Your task to perform on an android device: Open Google Chrome and click the shortcut for Amazon.com Image 0: 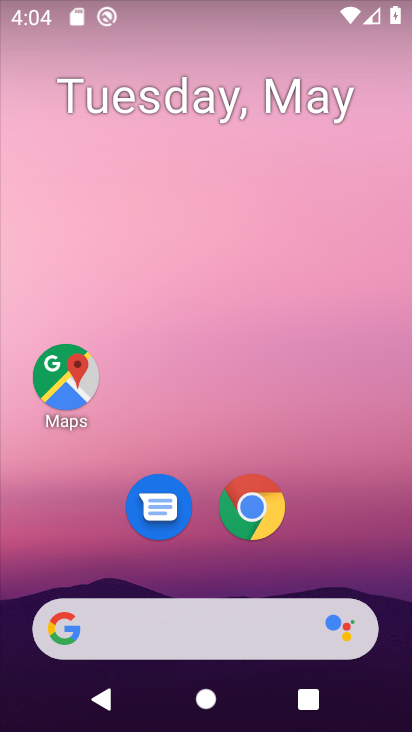
Step 0: click (252, 503)
Your task to perform on an android device: Open Google Chrome and click the shortcut for Amazon.com Image 1: 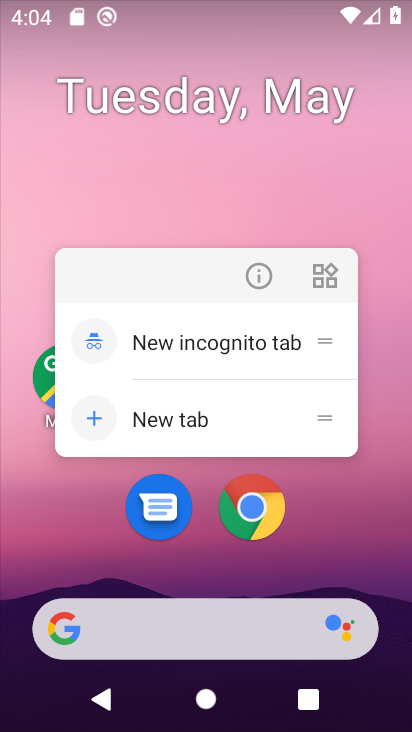
Step 1: click (252, 503)
Your task to perform on an android device: Open Google Chrome and click the shortcut for Amazon.com Image 2: 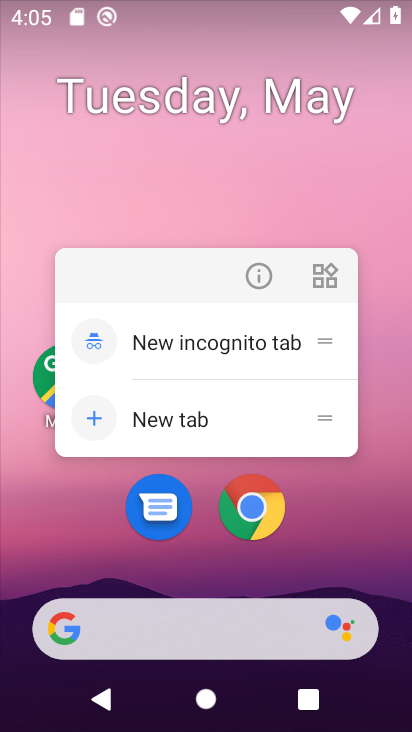
Step 2: click (239, 508)
Your task to perform on an android device: Open Google Chrome and click the shortcut for Amazon.com Image 3: 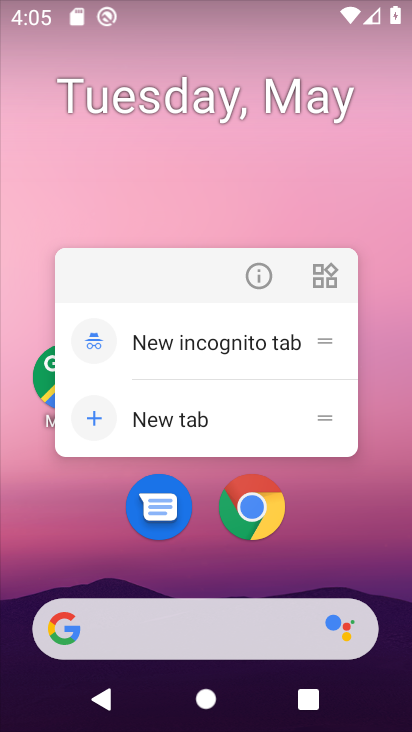
Step 3: click (241, 511)
Your task to perform on an android device: Open Google Chrome and click the shortcut for Amazon.com Image 4: 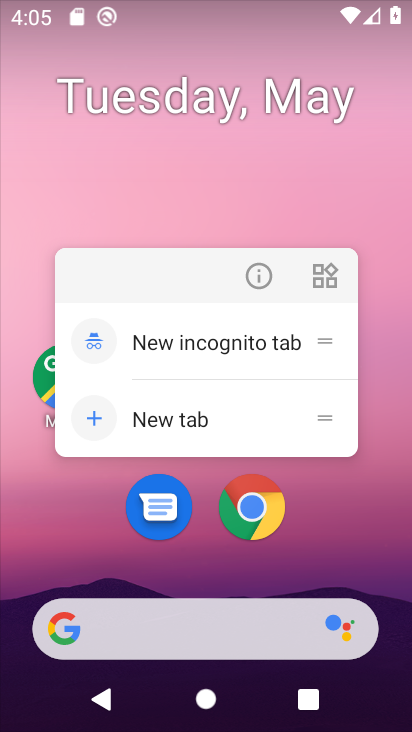
Step 4: click (264, 532)
Your task to perform on an android device: Open Google Chrome and click the shortcut for Amazon.com Image 5: 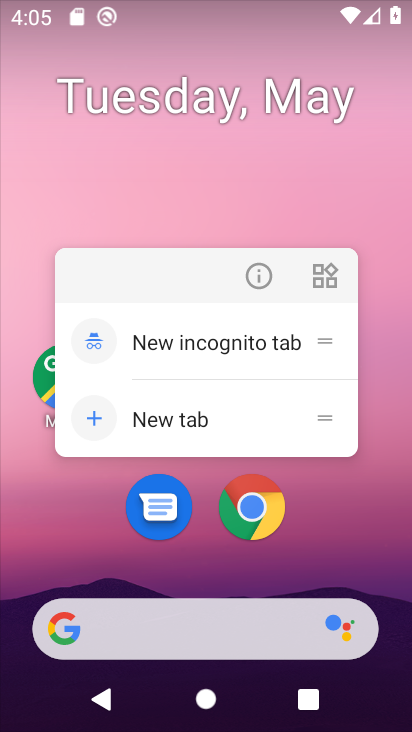
Step 5: click (258, 515)
Your task to perform on an android device: Open Google Chrome and click the shortcut for Amazon.com Image 6: 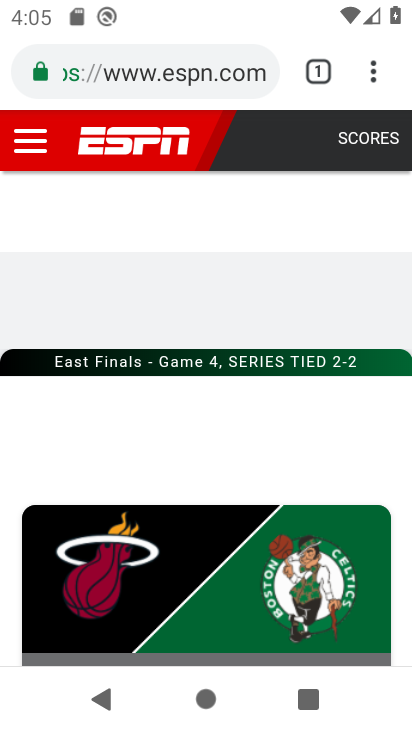
Step 6: click (370, 77)
Your task to perform on an android device: Open Google Chrome and click the shortcut for Amazon.com Image 7: 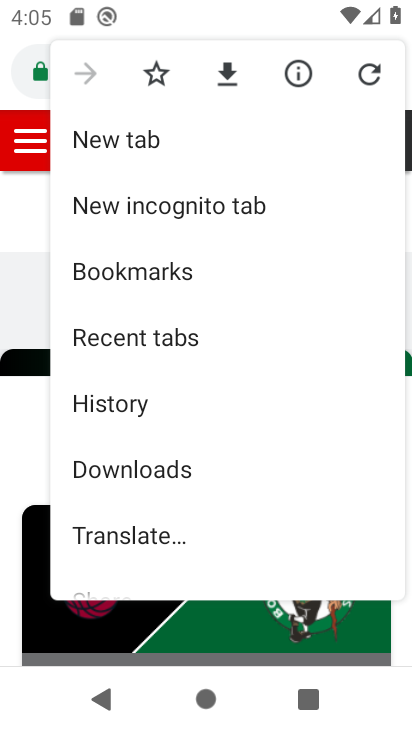
Step 7: click (131, 142)
Your task to perform on an android device: Open Google Chrome and click the shortcut for Amazon.com Image 8: 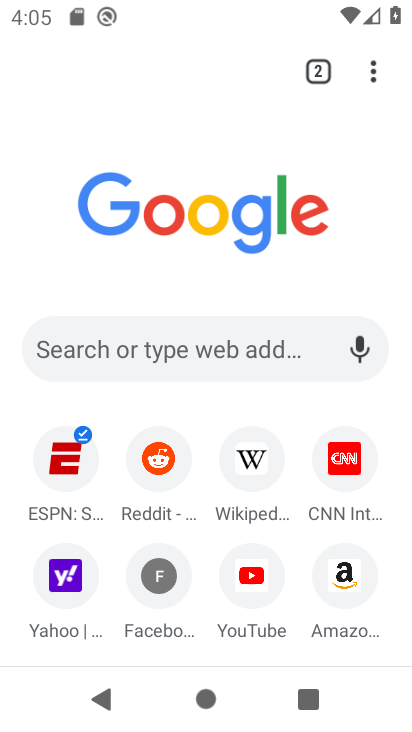
Step 8: click (341, 568)
Your task to perform on an android device: Open Google Chrome and click the shortcut for Amazon.com Image 9: 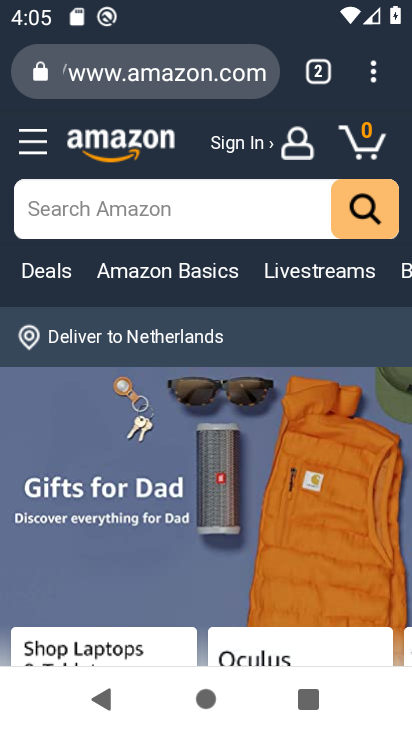
Step 9: task complete